Your task to perform on an android device: Open eBay Image 0: 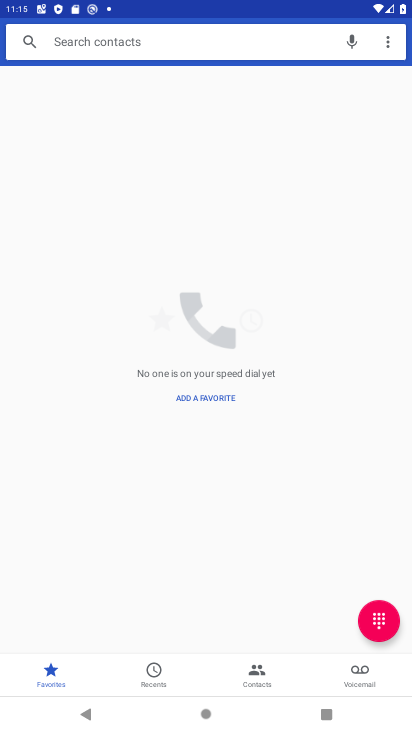
Step 0: press home button
Your task to perform on an android device: Open eBay Image 1: 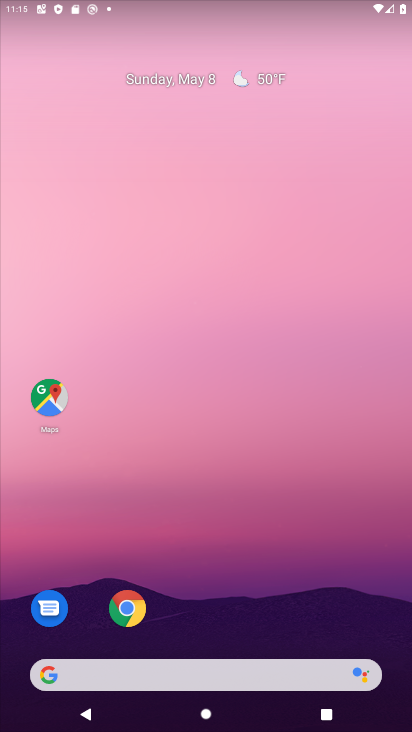
Step 1: click (152, 596)
Your task to perform on an android device: Open eBay Image 2: 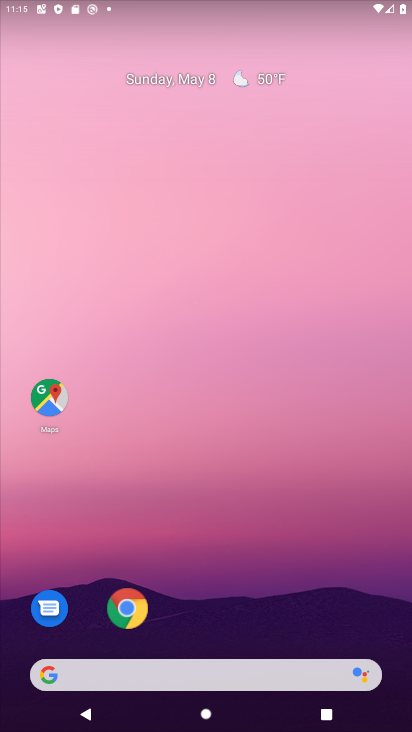
Step 2: click (147, 606)
Your task to perform on an android device: Open eBay Image 3: 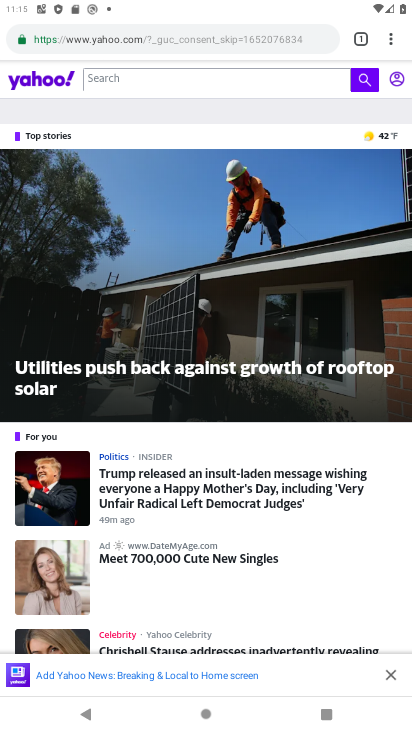
Step 3: click (255, 17)
Your task to perform on an android device: Open eBay Image 4: 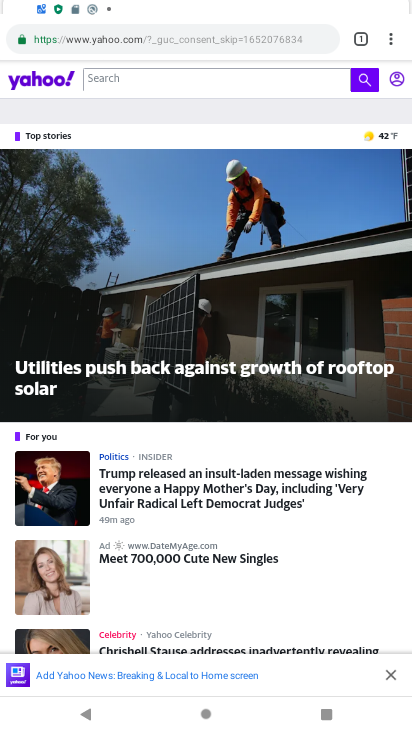
Step 4: click (253, 34)
Your task to perform on an android device: Open eBay Image 5: 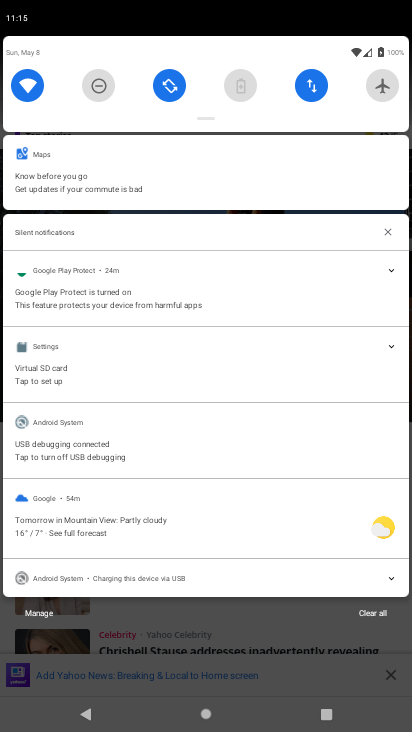
Step 5: drag from (160, 645) to (137, 2)
Your task to perform on an android device: Open eBay Image 6: 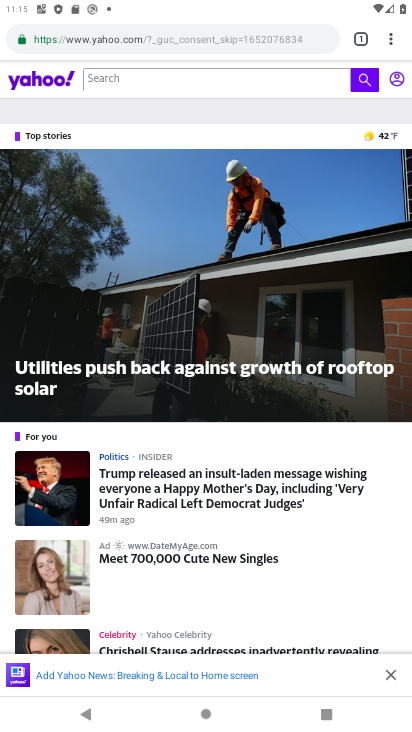
Step 6: click (195, 82)
Your task to perform on an android device: Open eBay Image 7: 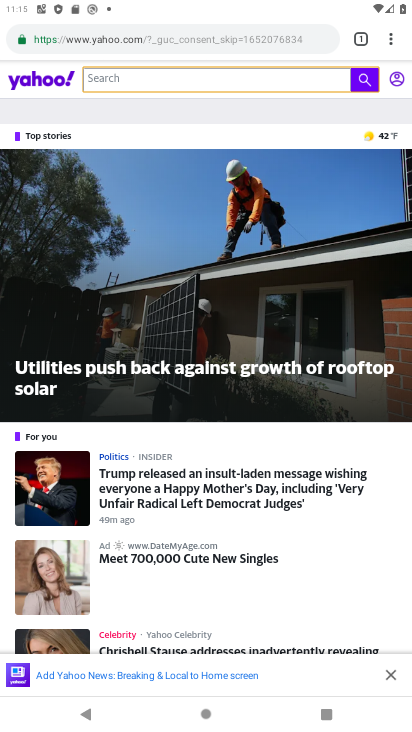
Step 7: click (195, 34)
Your task to perform on an android device: Open eBay Image 8: 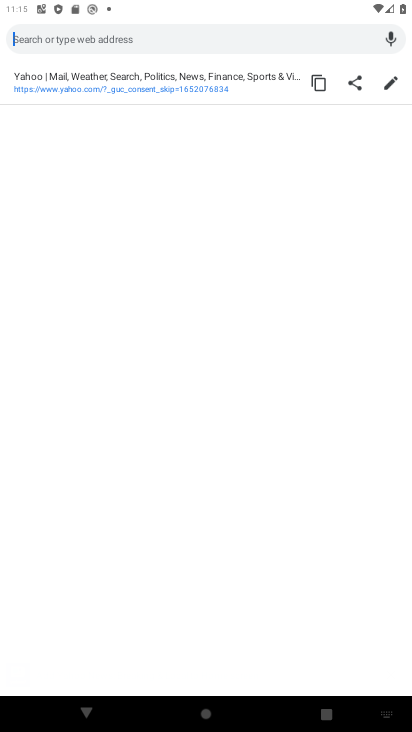
Step 8: type "ebay"
Your task to perform on an android device: Open eBay Image 9: 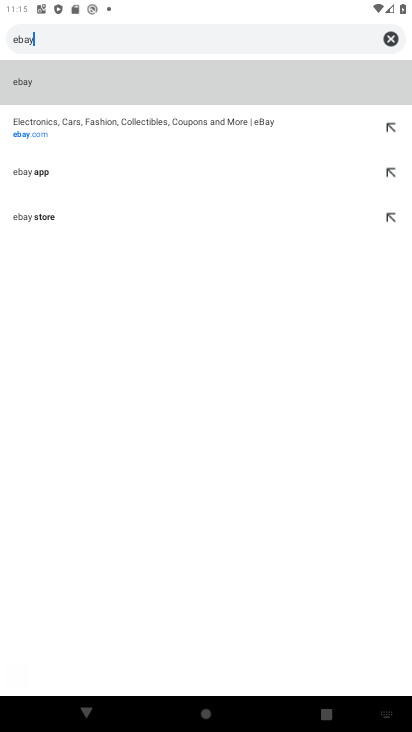
Step 9: click (41, 76)
Your task to perform on an android device: Open eBay Image 10: 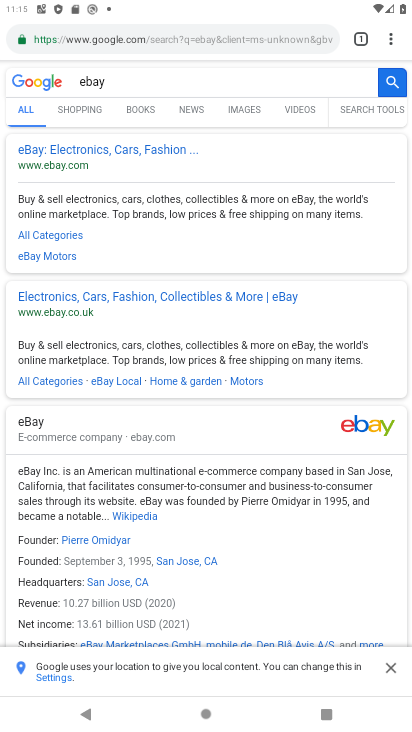
Step 10: click (99, 152)
Your task to perform on an android device: Open eBay Image 11: 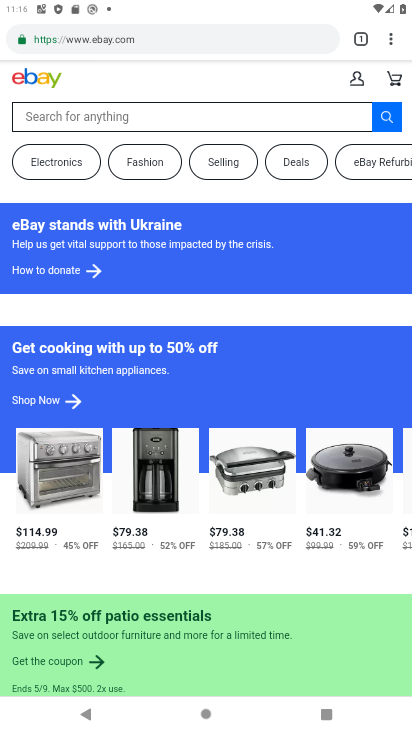
Step 11: task complete